Your task to perform on an android device: turn notification dots on Image 0: 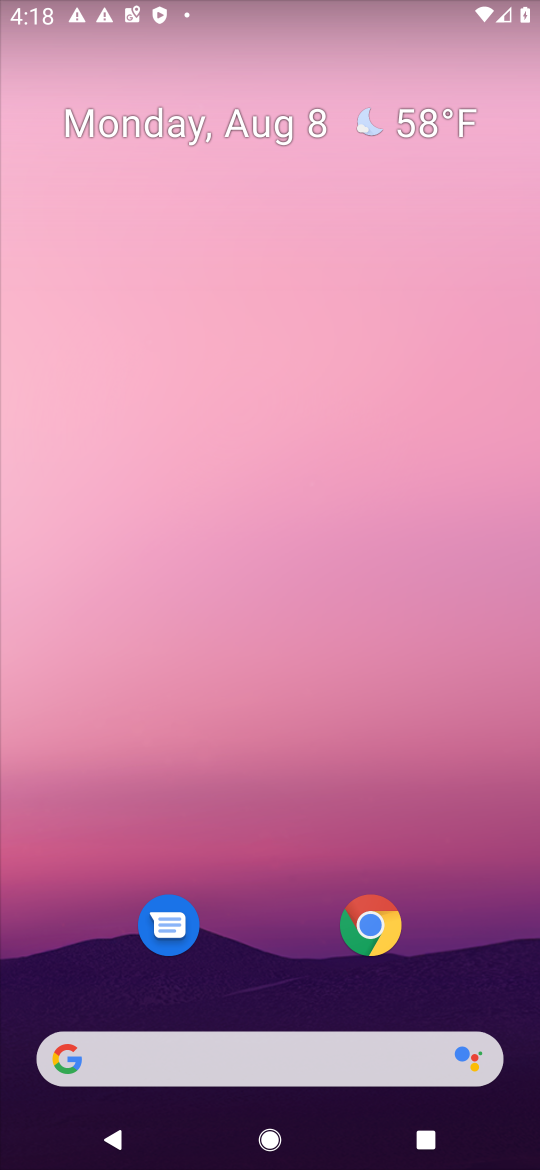
Step 0: drag from (287, 955) to (239, 221)
Your task to perform on an android device: turn notification dots on Image 1: 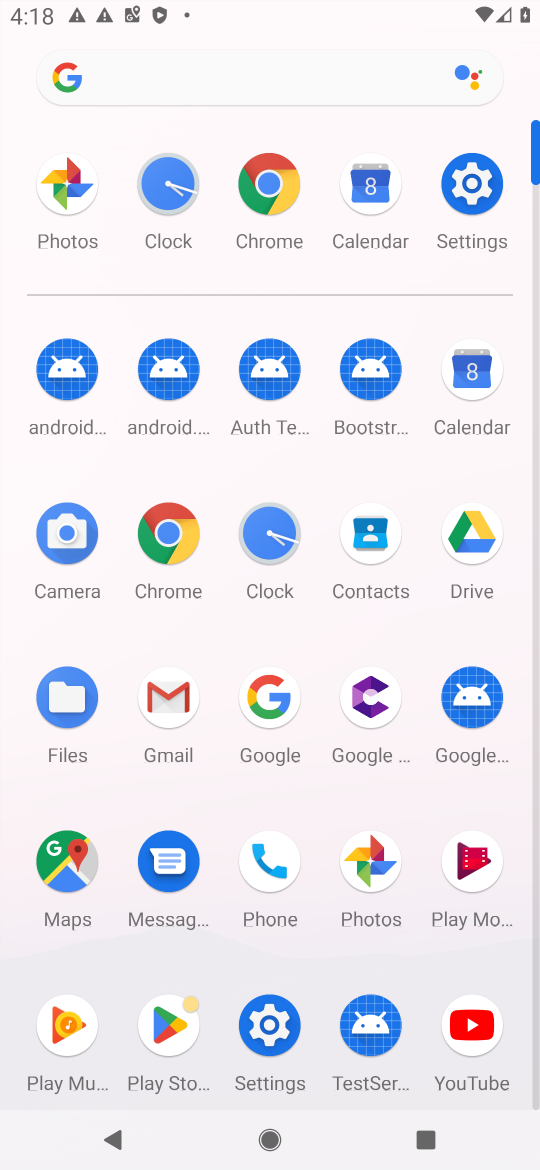
Step 1: click (477, 177)
Your task to perform on an android device: turn notification dots on Image 2: 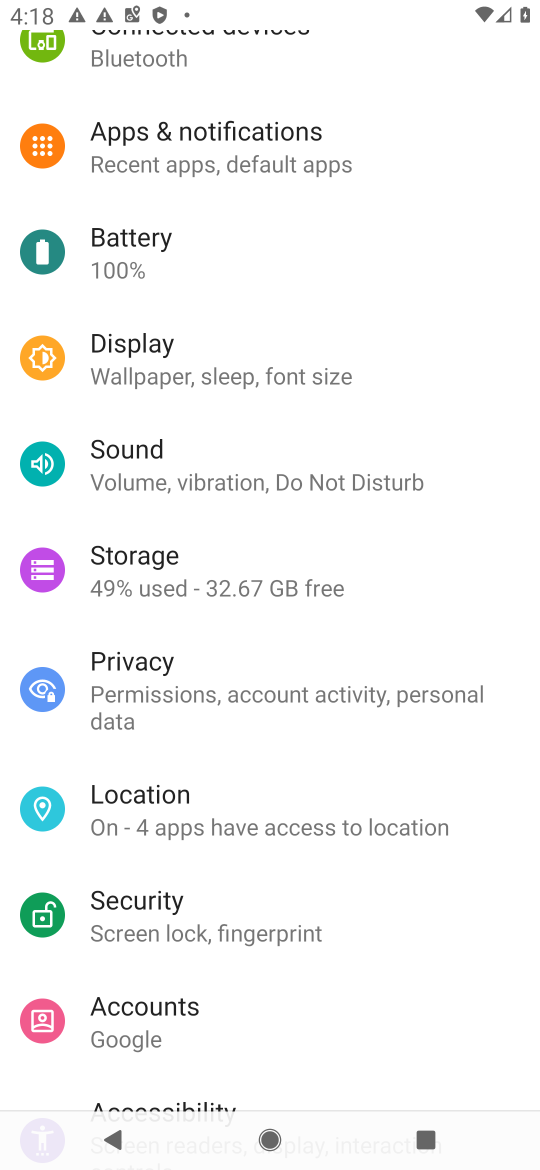
Step 2: click (197, 164)
Your task to perform on an android device: turn notification dots on Image 3: 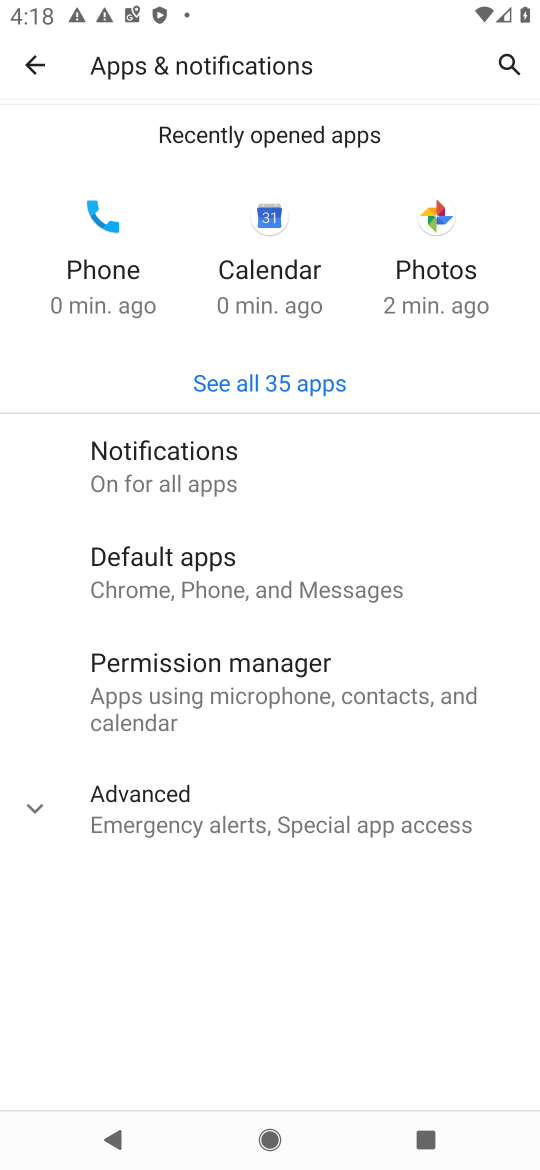
Step 3: click (157, 477)
Your task to perform on an android device: turn notification dots on Image 4: 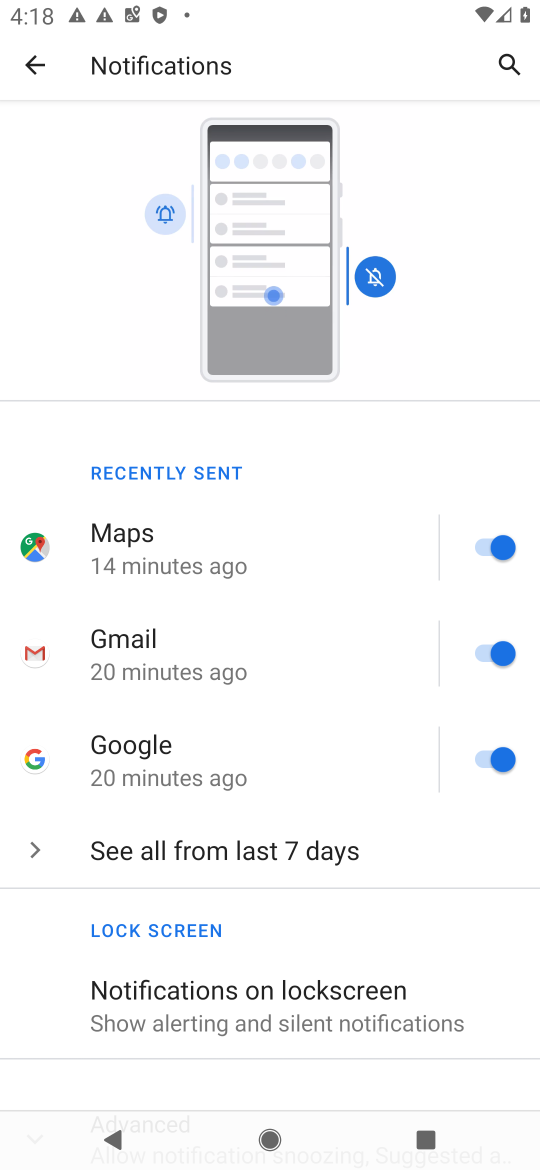
Step 4: drag from (295, 1020) to (309, 680)
Your task to perform on an android device: turn notification dots on Image 5: 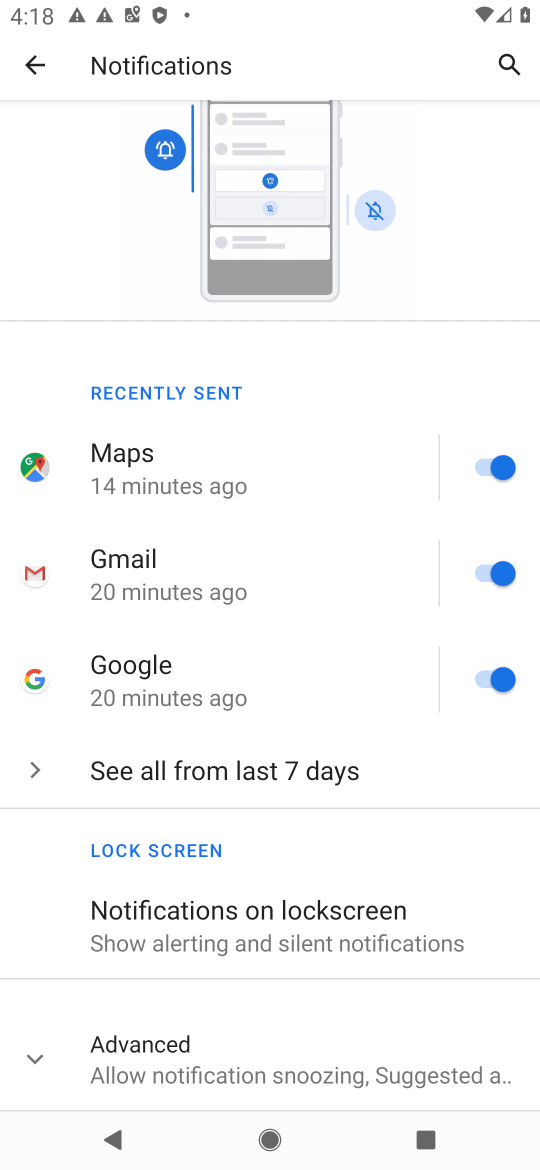
Step 5: click (219, 1055)
Your task to perform on an android device: turn notification dots on Image 6: 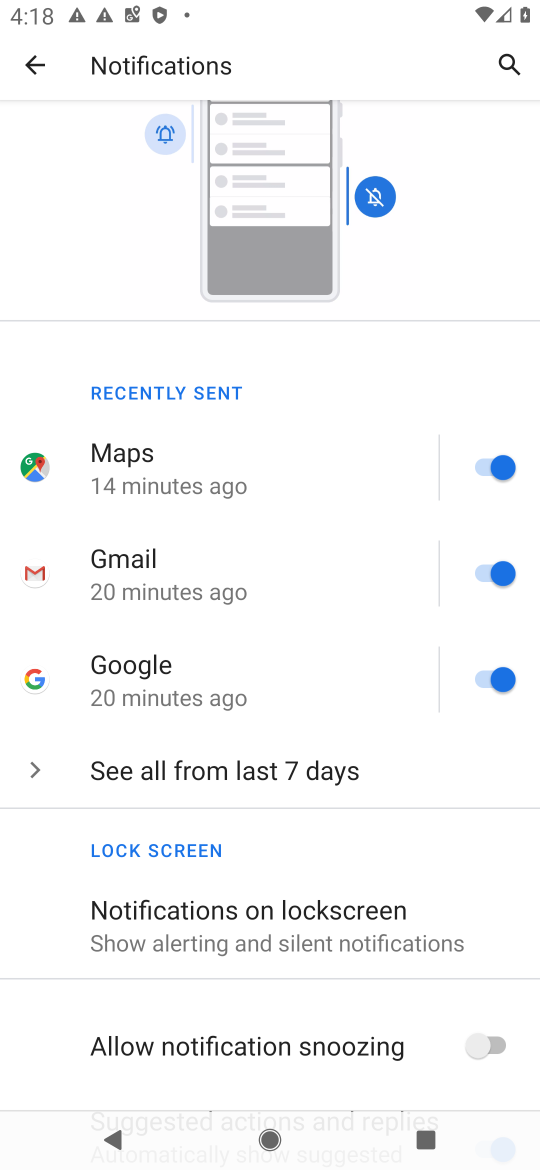
Step 6: task complete